Your task to perform on an android device: Go to privacy settings Image 0: 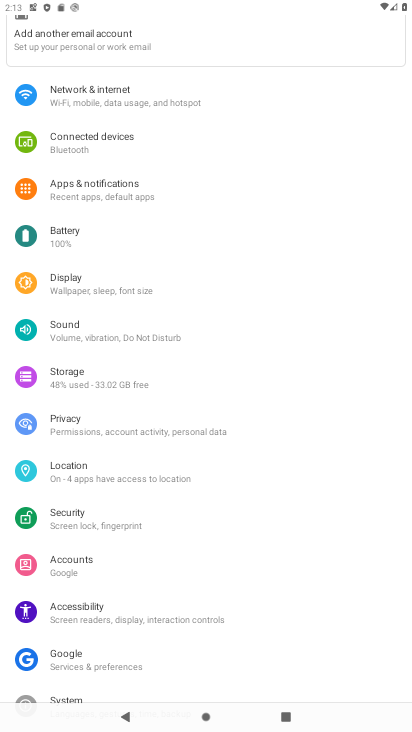
Step 0: click (87, 433)
Your task to perform on an android device: Go to privacy settings Image 1: 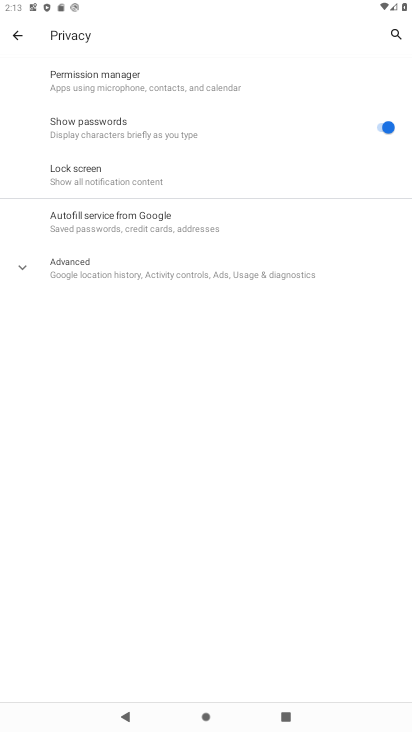
Step 1: task complete